Your task to perform on an android device: open a new tab in the chrome app Image 0: 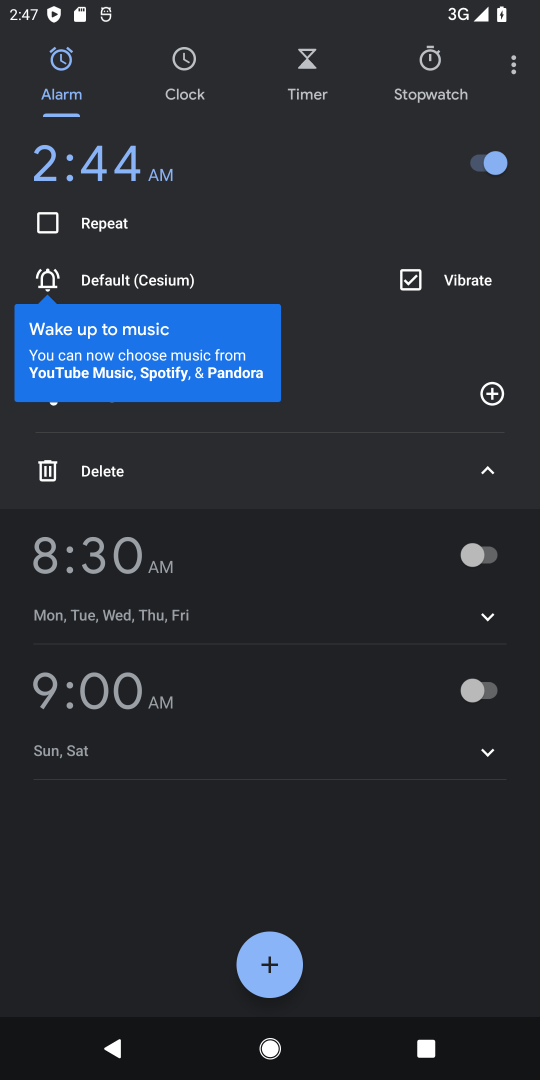
Step 0: press home button
Your task to perform on an android device: open a new tab in the chrome app Image 1: 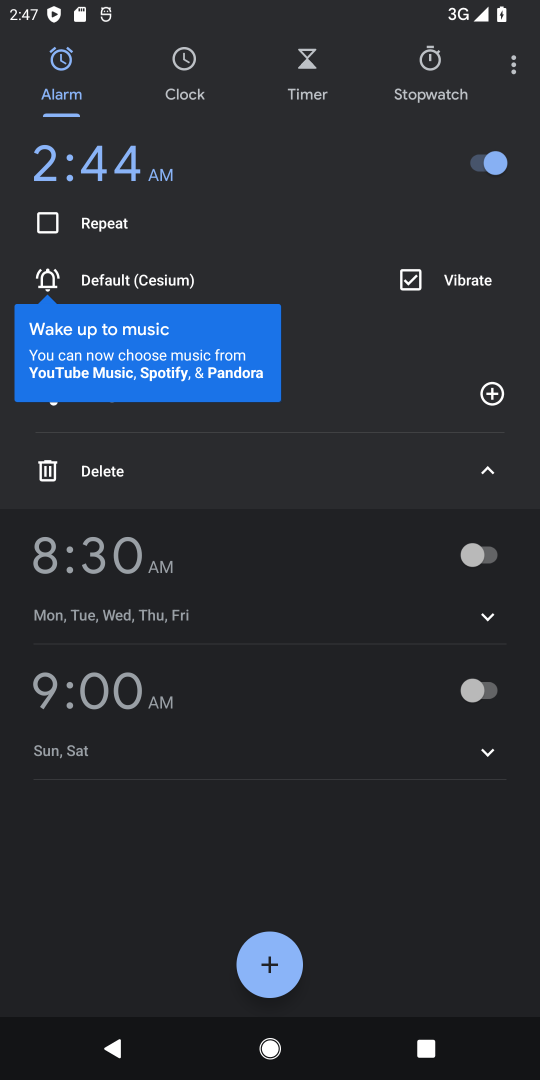
Step 1: press home button
Your task to perform on an android device: open a new tab in the chrome app Image 2: 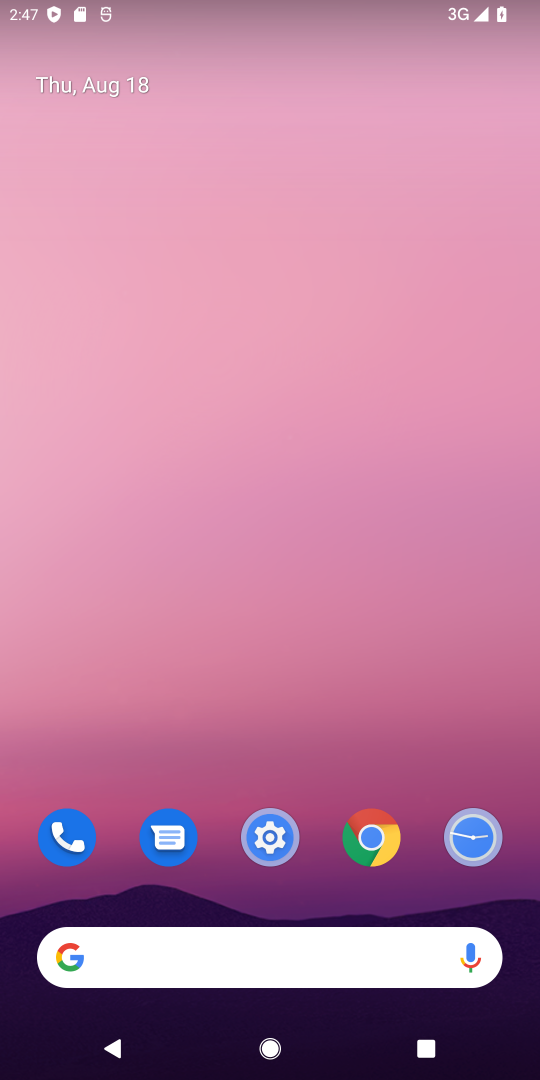
Step 2: drag from (294, 767) to (336, 17)
Your task to perform on an android device: open a new tab in the chrome app Image 3: 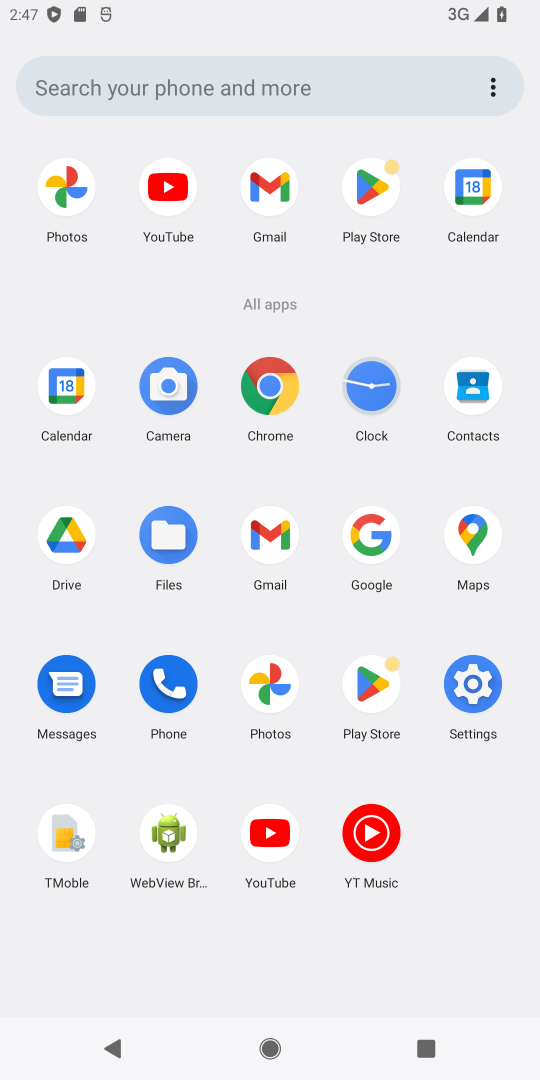
Step 3: click (277, 392)
Your task to perform on an android device: open a new tab in the chrome app Image 4: 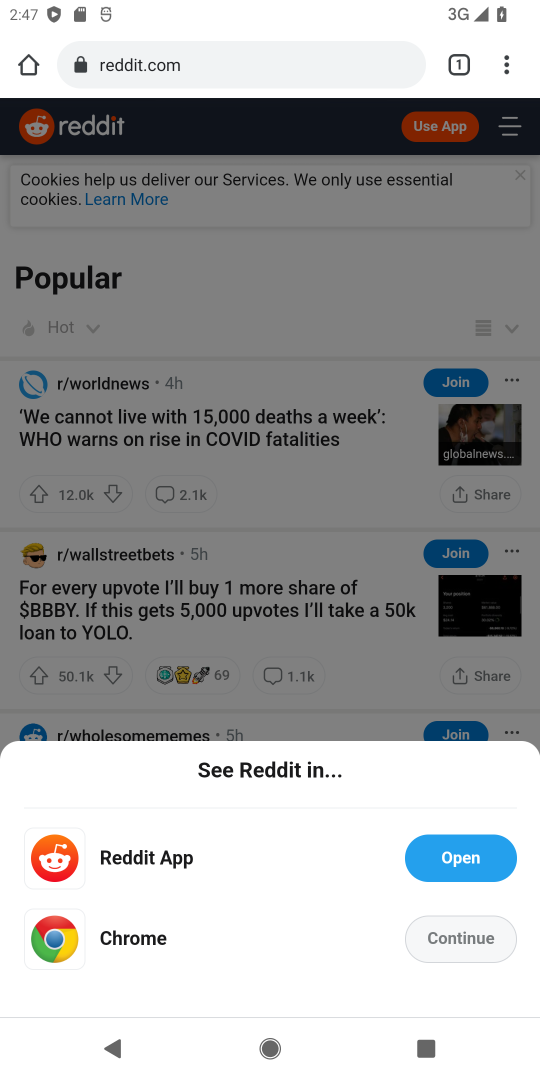
Step 4: task complete